Your task to perform on an android device: Search for pizza restaurants on Maps Image 0: 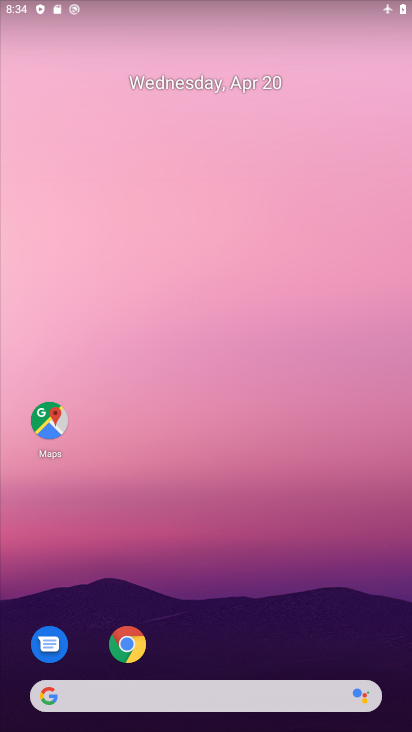
Step 0: drag from (300, 626) to (233, 124)
Your task to perform on an android device: Search for pizza restaurants on Maps Image 1: 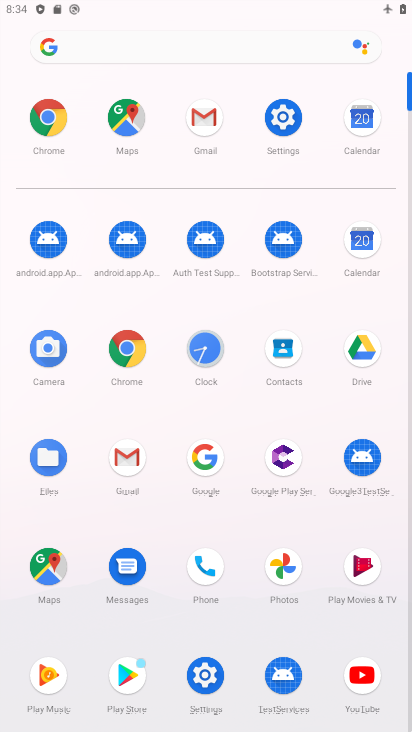
Step 1: click (113, 118)
Your task to perform on an android device: Search for pizza restaurants on Maps Image 2: 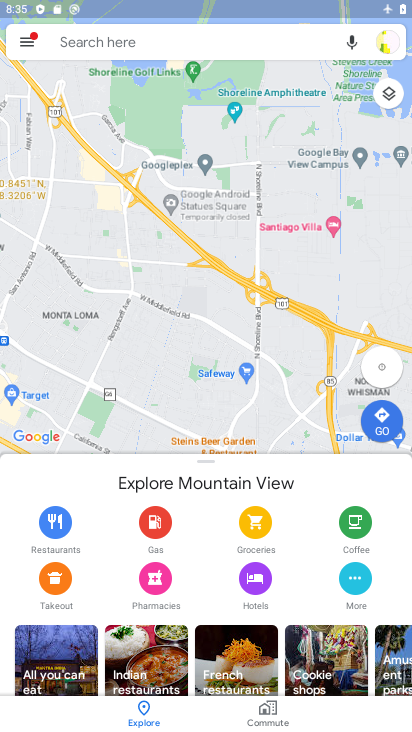
Step 2: click (193, 36)
Your task to perform on an android device: Search for pizza restaurants on Maps Image 3: 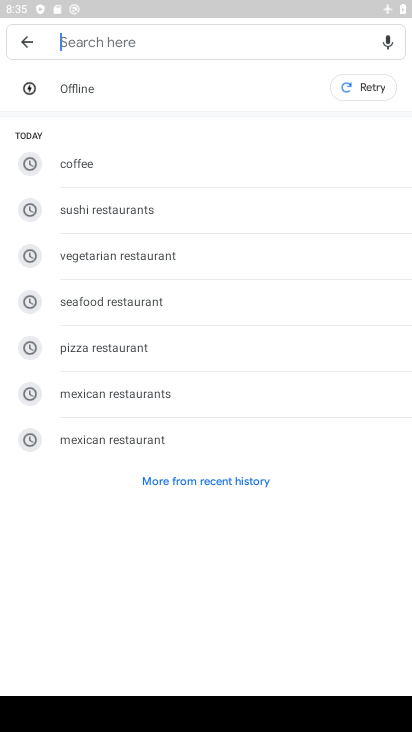
Step 3: click (98, 341)
Your task to perform on an android device: Search for pizza restaurants on Maps Image 4: 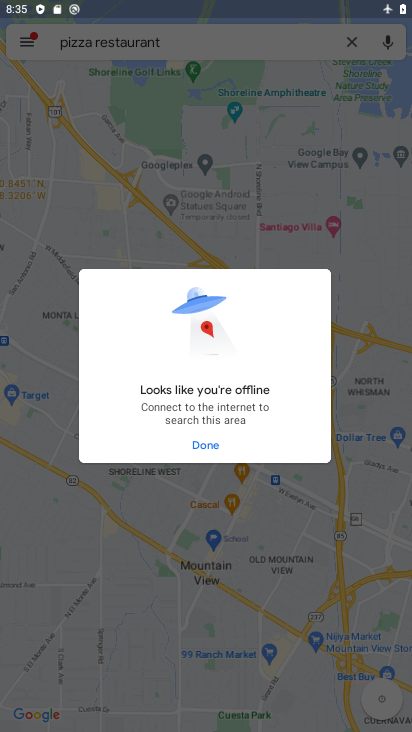
Step 4: task complete